Your task to perform on an android device: Open Yahoo.com Image 0: 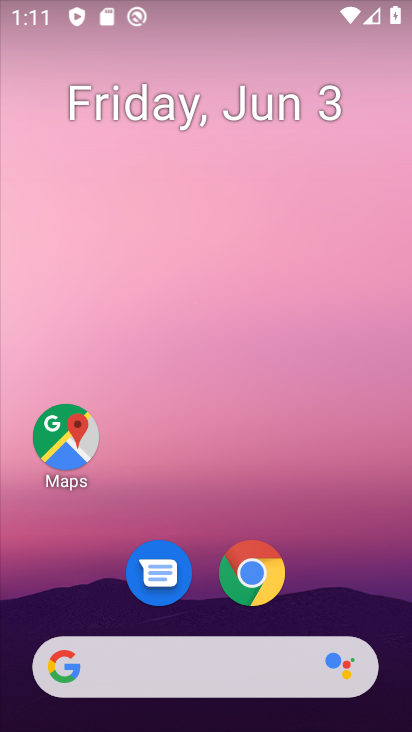
Step 0: click (216, 659)
Your task to perform on an android device: Open Yahoo.com Image 1: 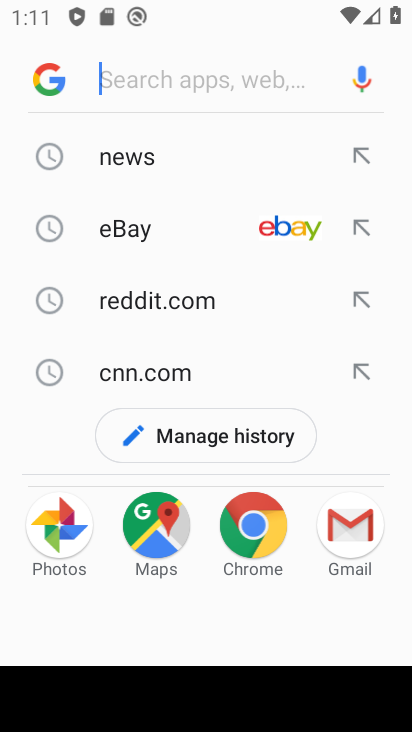
Step 1: type "yahoo.com"
Your task to perform on an android device: Open Yahoo.com Image 2: 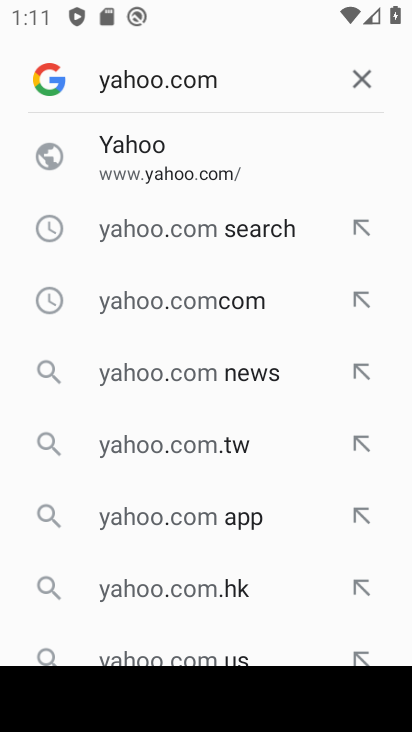
Step 2: task complete